Your task to perform on an android device: Open maps Image 0: 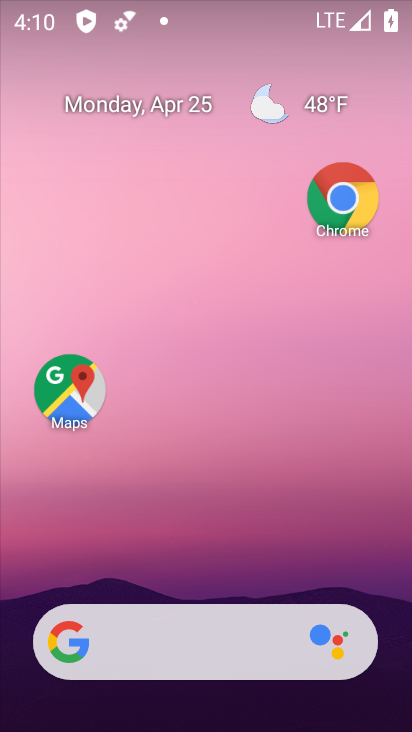
Step 0: click (61, 394)
Your task to perform on an android device: Open maps Image 1: 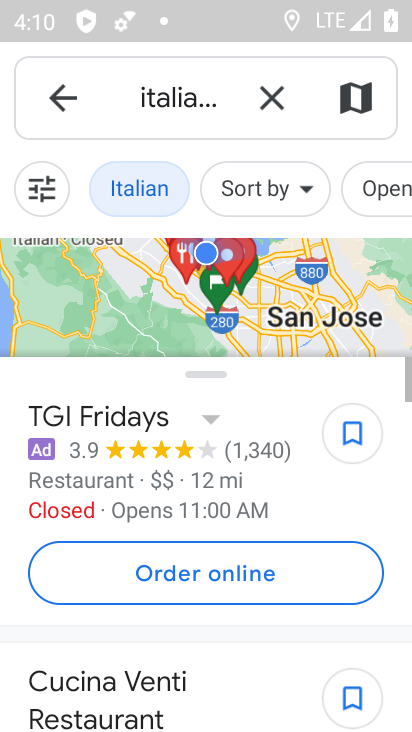
Step 1: click (70, 98)
Your task to perform on an android device: Open maps Image 2: 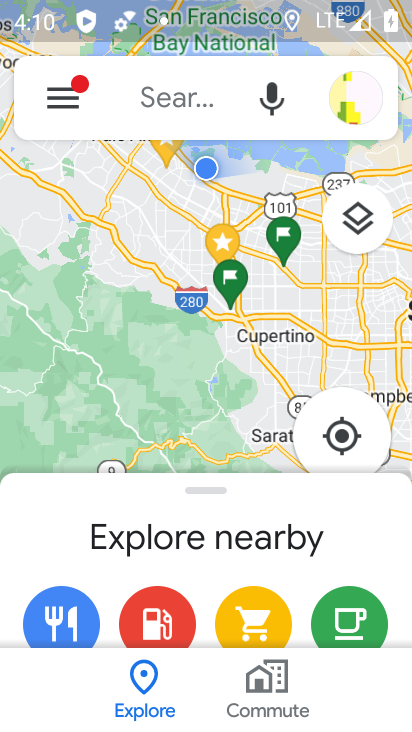
Step 2: task complete